Your task to perform on an android device: Play the last video I watched on Youtube Image 0: 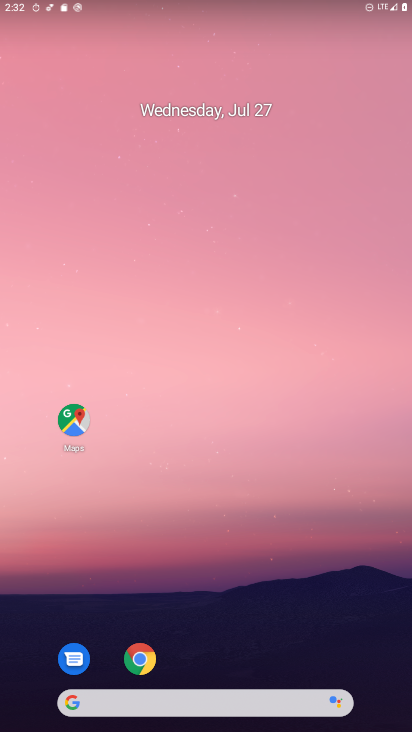
Step 0: drag from (301, 613) to (262, 69)
Your task to perform on an android device: Play the last video I watched on Youtube Image 1: 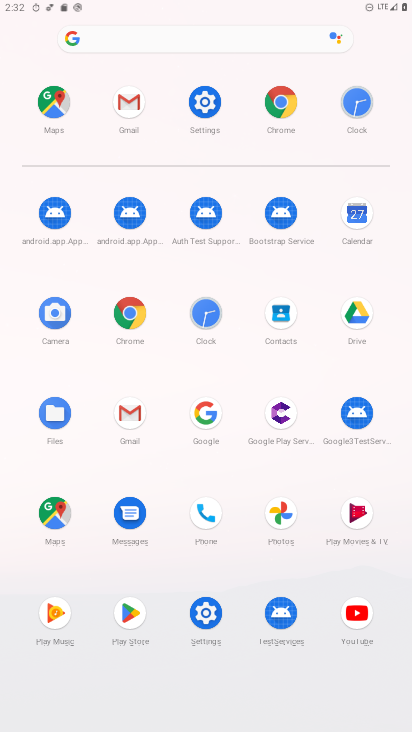
Step 1: click (362, 619)
Your task to perform on an android device: Play the last video I watched on Youtube Image 2: 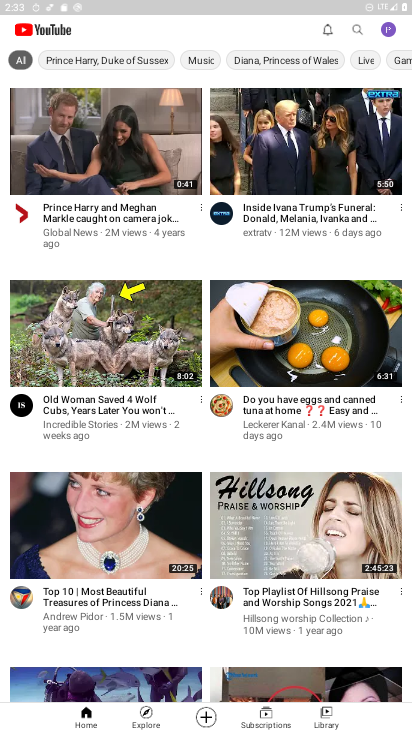
Step 2: click (337, 715)
Your task to perform on an android device: Play the last video I watched on Youtube Image 3: 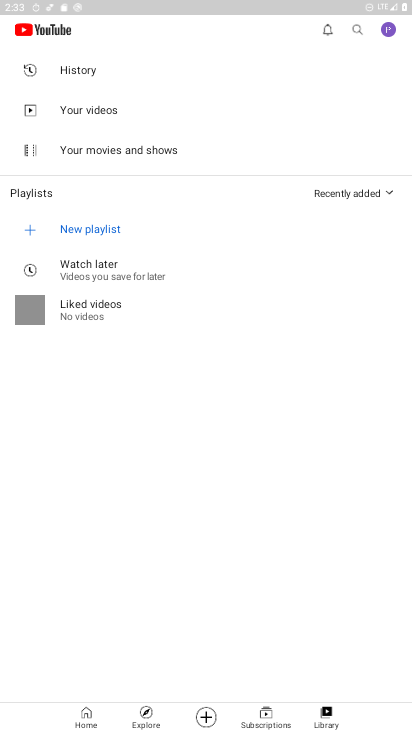
Step 3: click (86, 75)
Your task to perform on an android device: Play the last video I watched on Youtube Image 4: 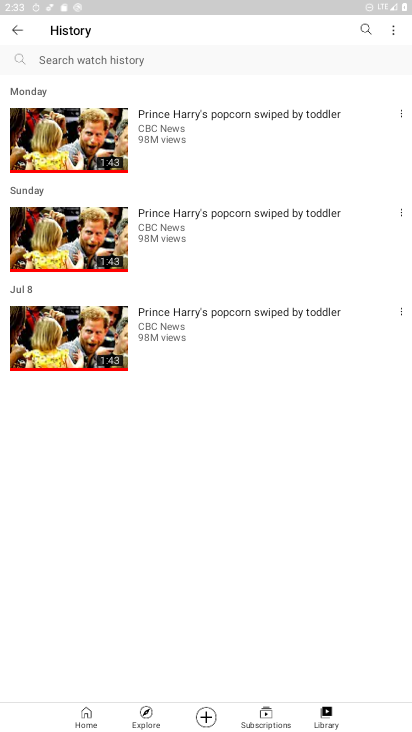
Step 4: click (74, 136)
Your task to perform on an android device: Play the last video I watched on Youtube Image 5: 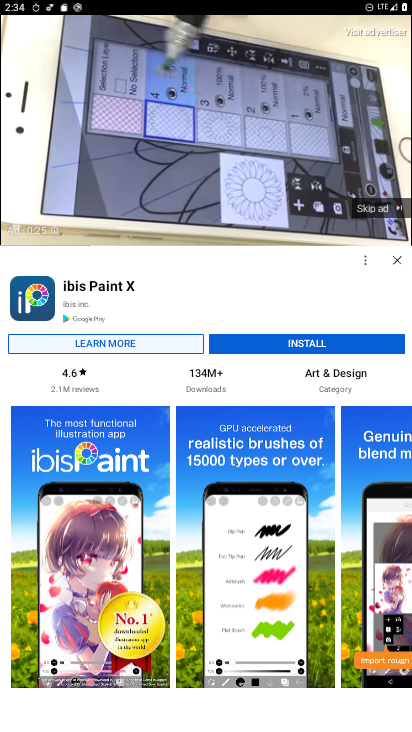
Step 5: click (377, 206)
Your task to perform on an android device: Play the last video I watched on Youtube Image 6: 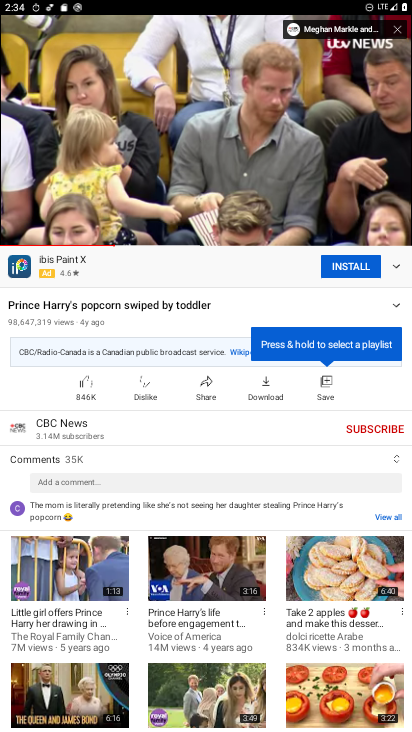
Step 6: task complete